Your task to perform on an android device: Search for Italian restaurants on Maps Image 0: 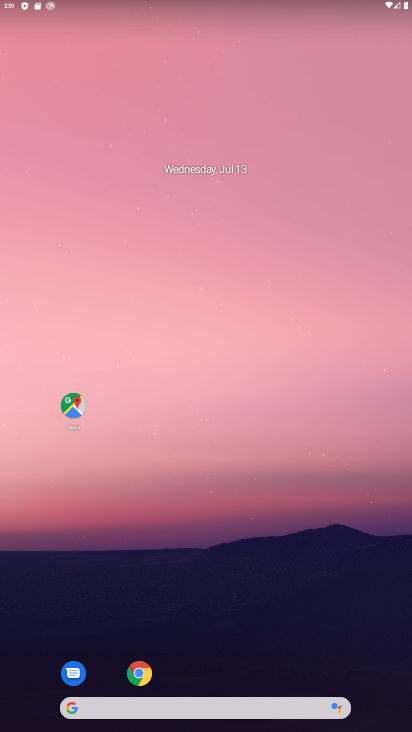
Step 0: click (76, 403)
Your task to perform on an android device: Search for Italian restaurants on Maps Image 1: 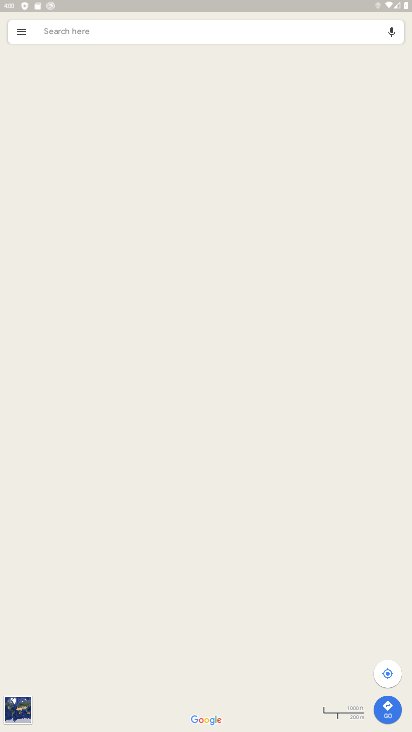
Step 1: click (180, 27)
Your task to perform on an android device: Search for Italian restaurants on Maps Image 2: 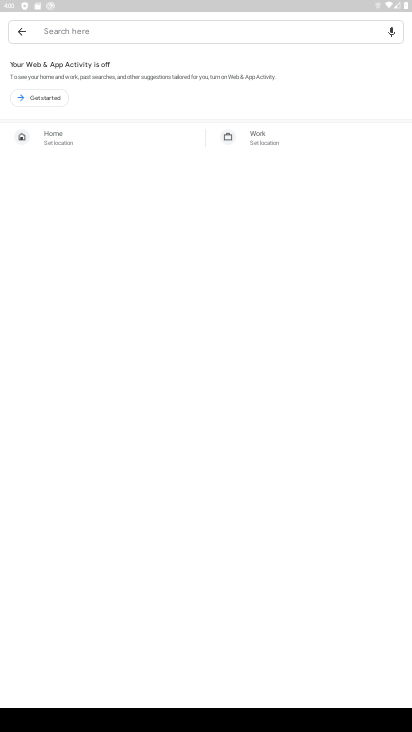
Step 2: type "italian restaurants"
Your task to perform on an android device: Search for Italian restaurants on Maps Image 3: 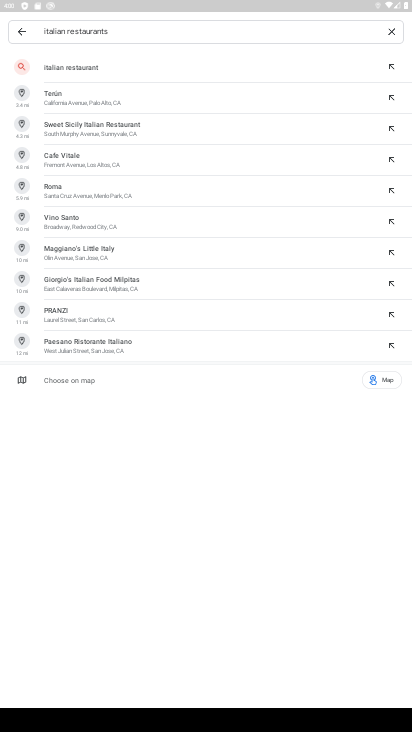
Step 3: click (248, 51)
Your task to perform on an android device: Search for Italian restaurants on Maps Image 4: 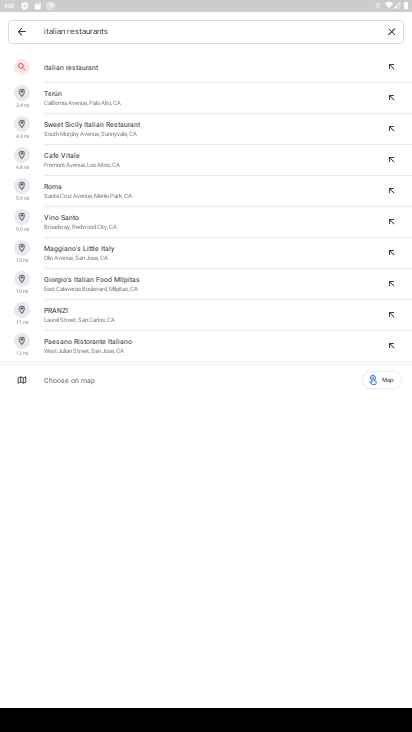
Step 4: click (252, 66)
Your task to perform on an android device: Search for Italian restaurants on Maps Image 5: 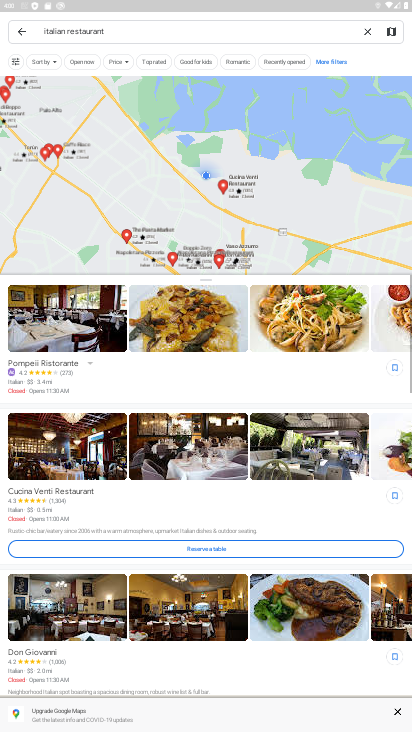
Step 5: task complete